Your task to perform on an android device: turn on sleep mode Image 0: 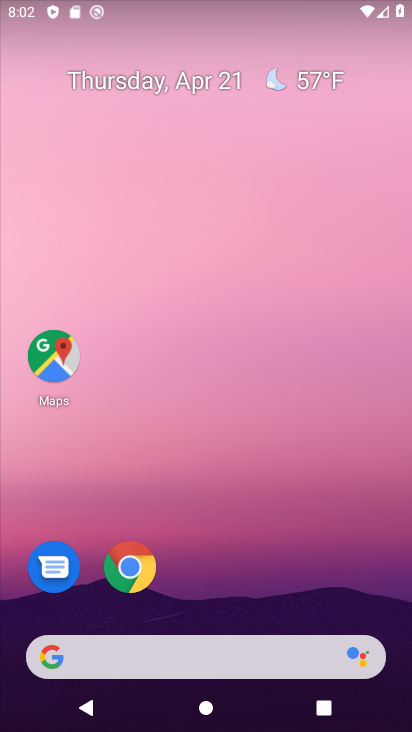
Step 0: drag from (216, 603) to (283, 127)
Your task to perform on an android device: turn on sleep mode Image 1: 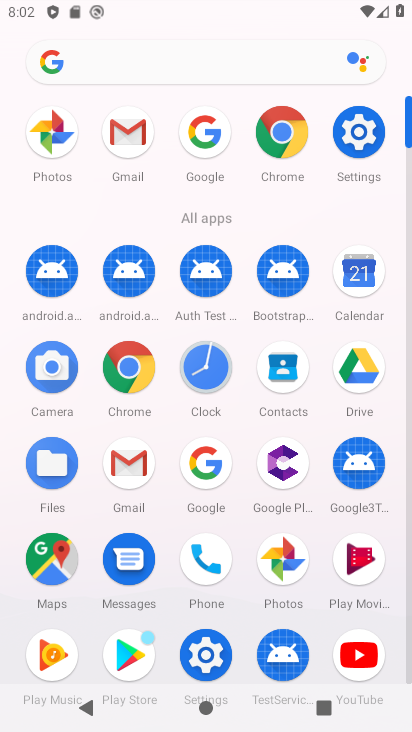
Step 1: click (353, 129)
Your task to perform on an android device: turn on sleep mode Image 2: 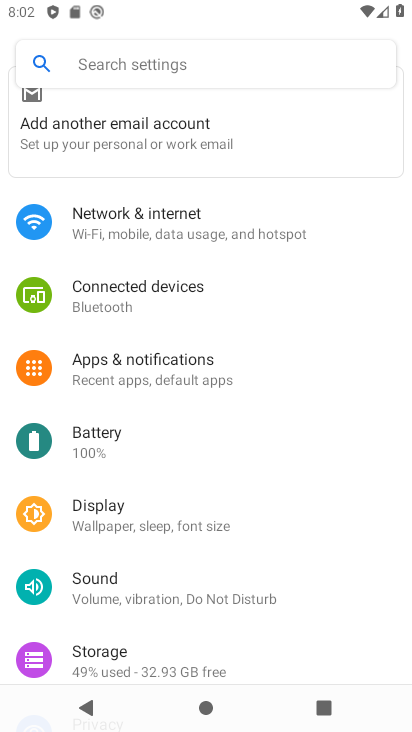
Step 2: click (101, 505)
Your task to perform on an android device: turn on sleep mode Image 3: 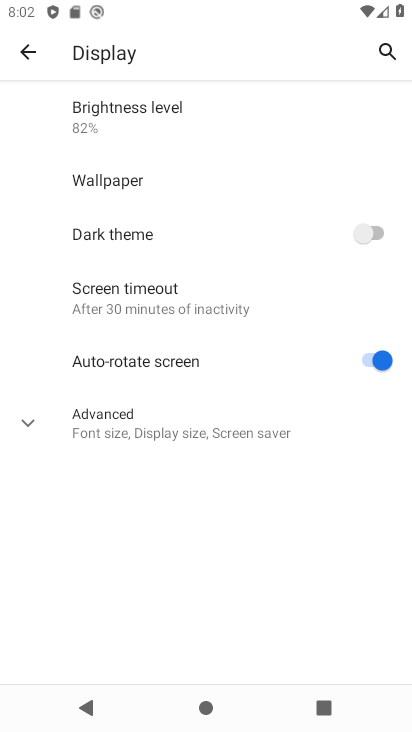
Step 3: click (122, 304)
Your task to perform on an android device: turn on sleep mode Image 4: 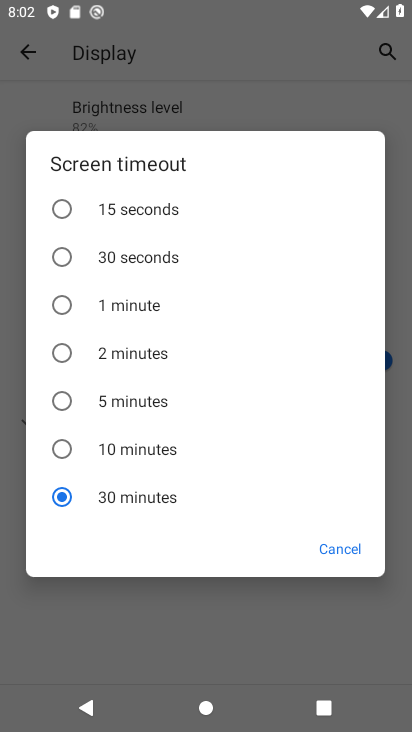
Step 4: click (122, 304)
Your task to perform on an android device: turn on sleep mode Image 5: 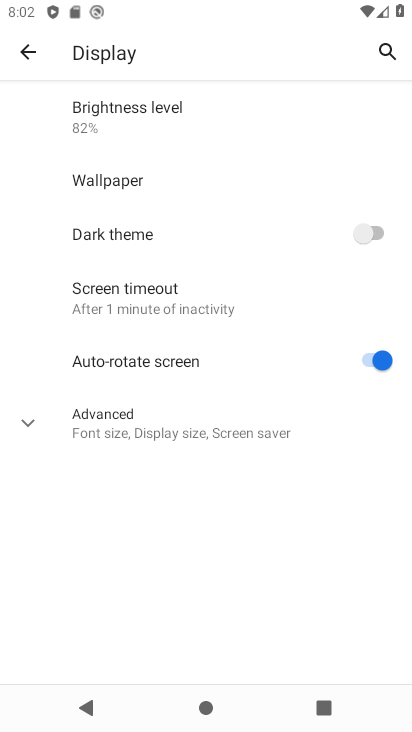
Step 5: task complete